Your task to perform on an android device: turn on bluetooth scan Image 0: 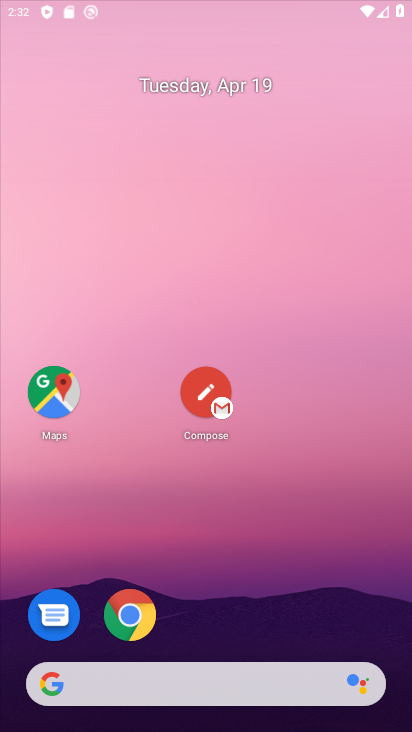
Step 0: drag from (302, 636) to (292, 7)
Your task to perform on an android device: turn on bluetooth scan Image 1: 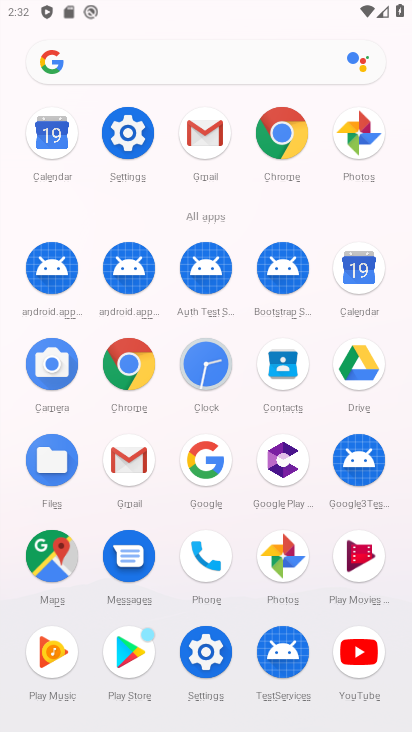
Step 1: click (207, 648)
Your task to perform on an android device: turn on bluetooth scan Image 2: 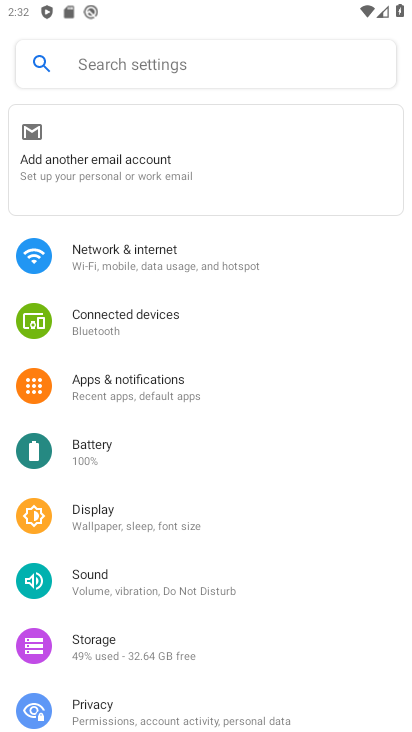
Step 2: drag from (152, 666) to (189, 218)
Your task to perform on an android device: turn on bluetooth scan Image 3: 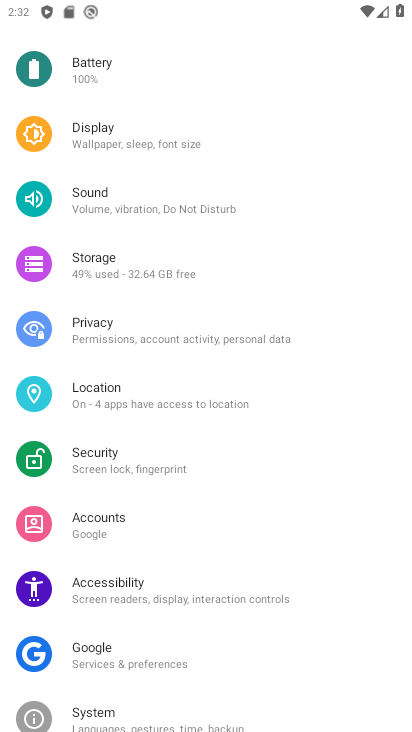
Step 3: drag from (115, 681) to (127, 311)
Your task to perform on an android device: turn on bluetooth scan Image 4: 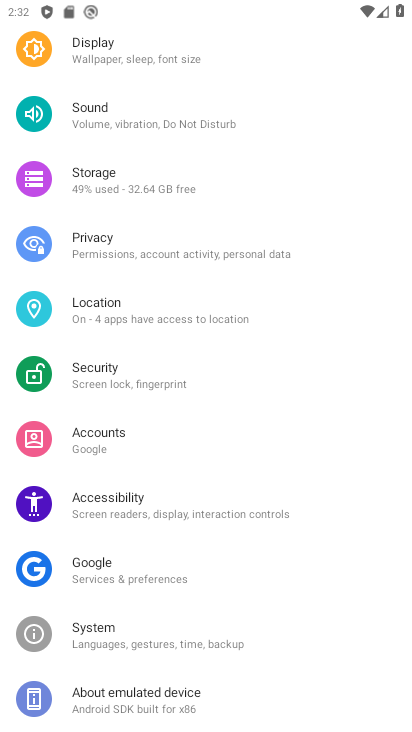
Step 4: click (221, 307)
Your task to perform on an android device: turn on bluetooth scan Image 5: 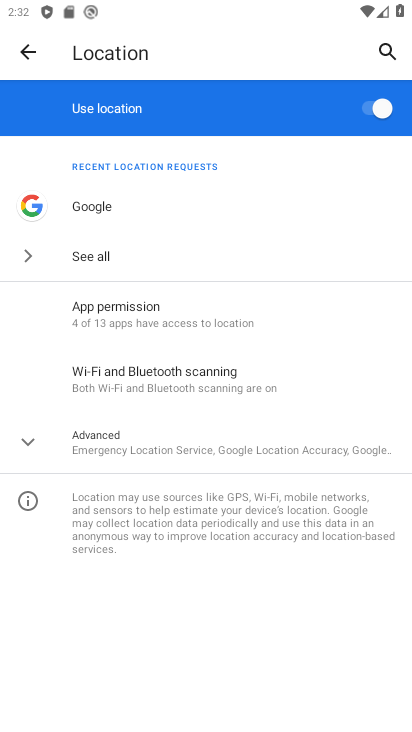
Step 5: click (246, 380)
Your task to perform on an android device: turn on bluetooth scan Image 6: 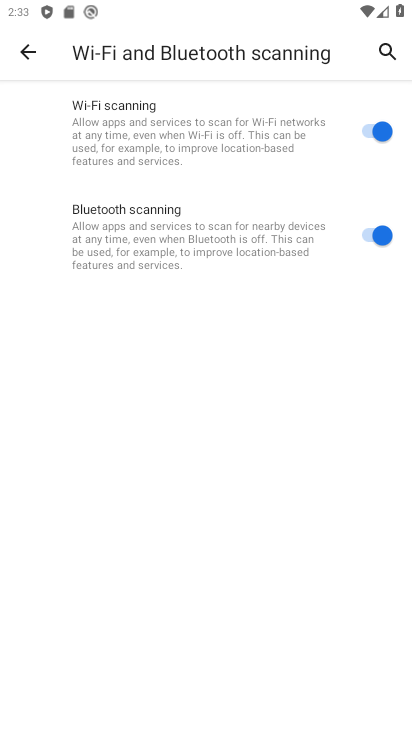
Step 6: task complete